Your task to perform on an android device: Open Chrome and go to settings Image 0: 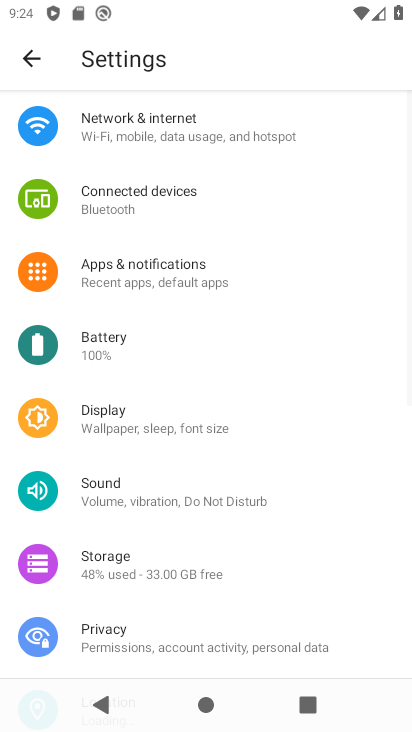
Step 0: press home button
Your task to perform on an android device: Open Chrome and go to settings Image 1: 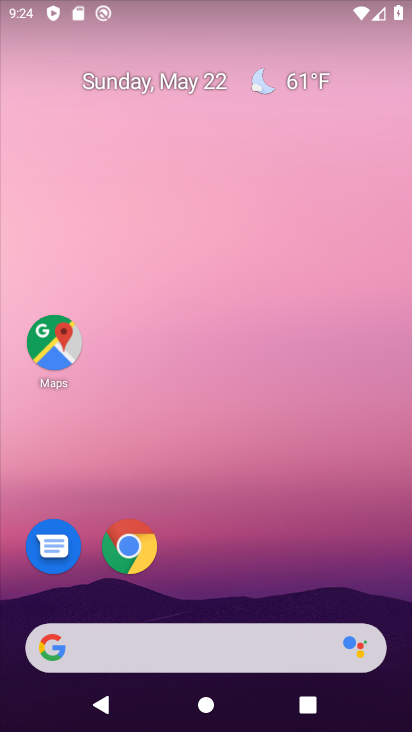
Step 1: click (135, 563)
Your task to perform on an android device: Open Chrome and go to settings Image 2: 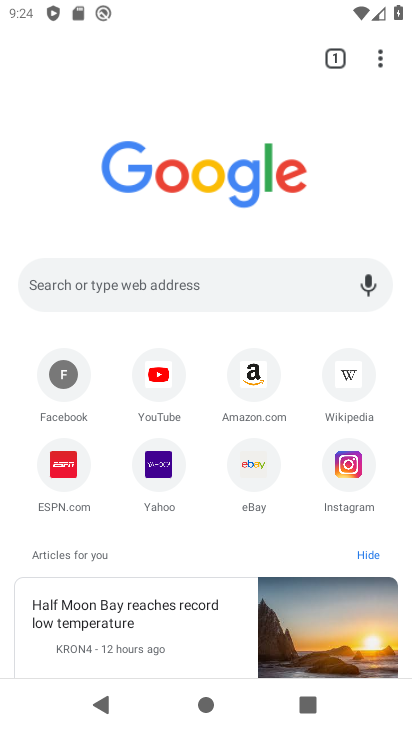
Step 2: task complete